Your task to perform on an android device: Search for vegetarian restaurants on Maps Image 0: 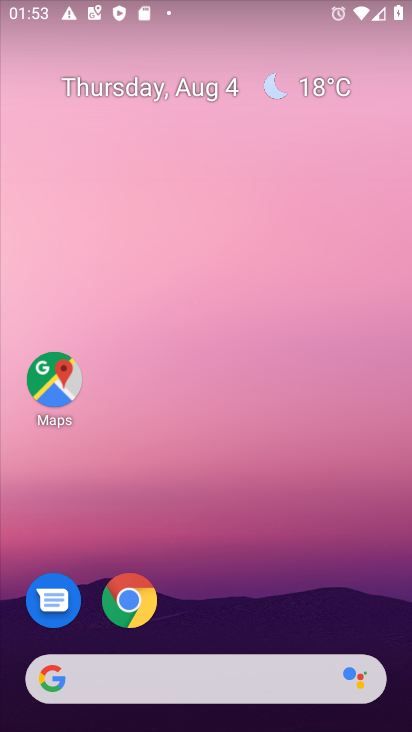
Step 0: click (54, 366)
Your task to perform on an android device: Search for vegetarian restaurants on Maps Image 1: 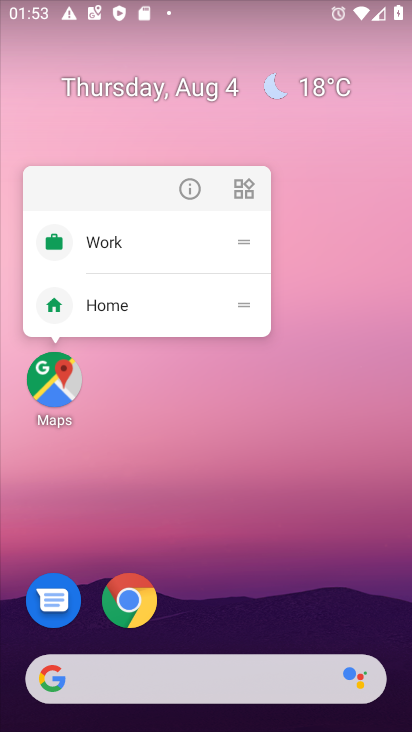
Step 1: click (55, 382)
Your task to perform on an android device: Search for vegetarian restaurants on Maps Image 2: 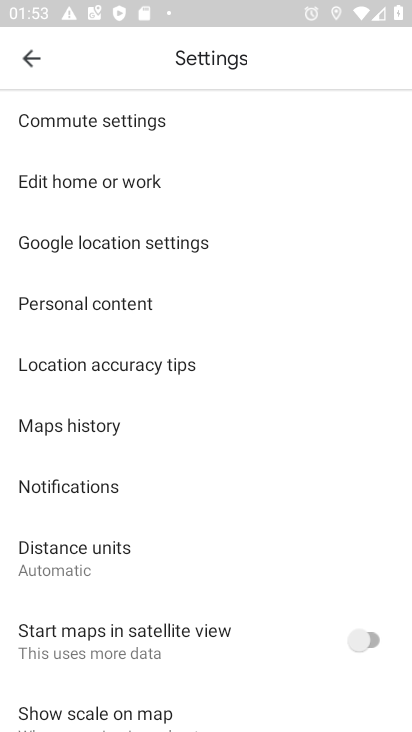
Step 2: click (37, 65)
Your task to perform on an android device: Search for vegetarian restaurants on Maps Image 3: 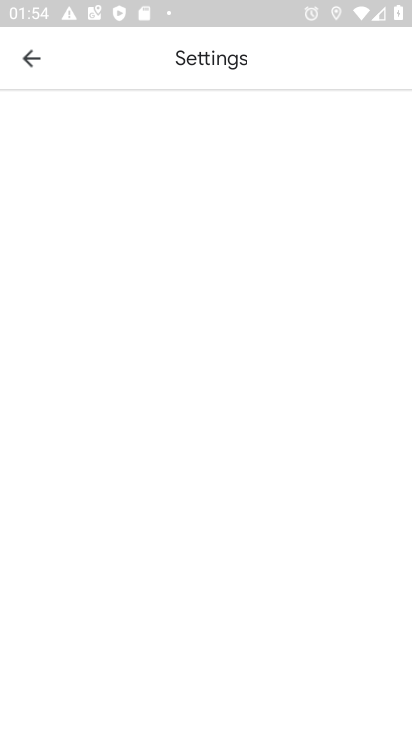
Step 3: click (37, 64)
Your task to perform on an android device: Search for vegetarian restaurants on Maps Image 4: 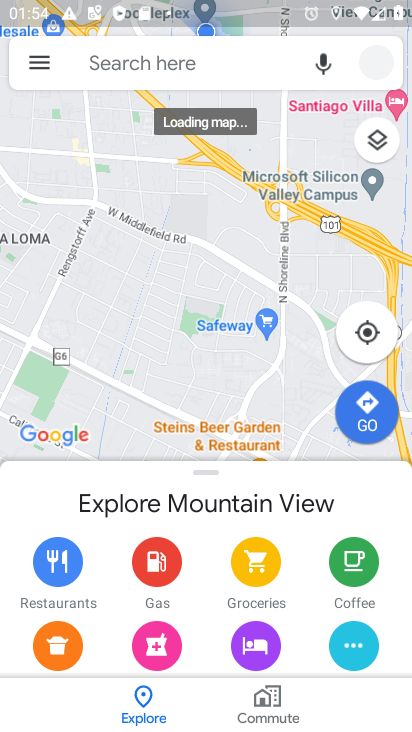
Step 4: click (161, 64)
Your task to perform on an android device: Search for vegetarian restaurants on Maps Image 5: 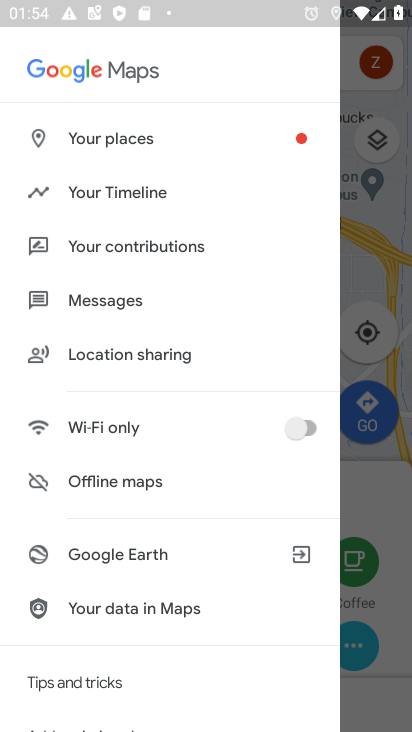
Step 5: click (353, 80)
Your task to perform on an android device: Search for vegetarian restaurants on Maps Image 6: 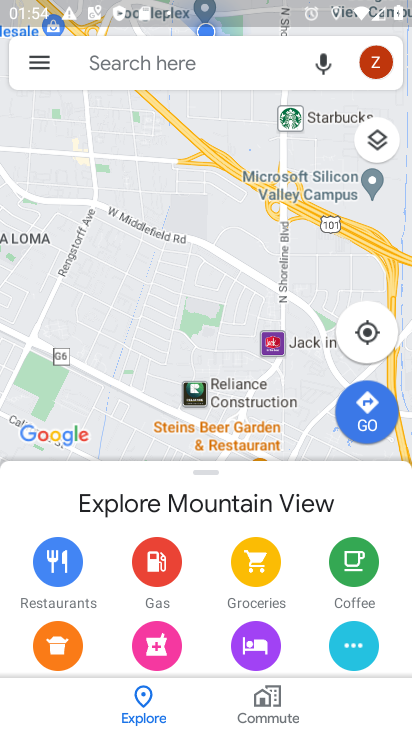
Step 6: click (157, 58)
Your task to perform on an android device: Search for vegetarian restaurants on Maps Image 7: 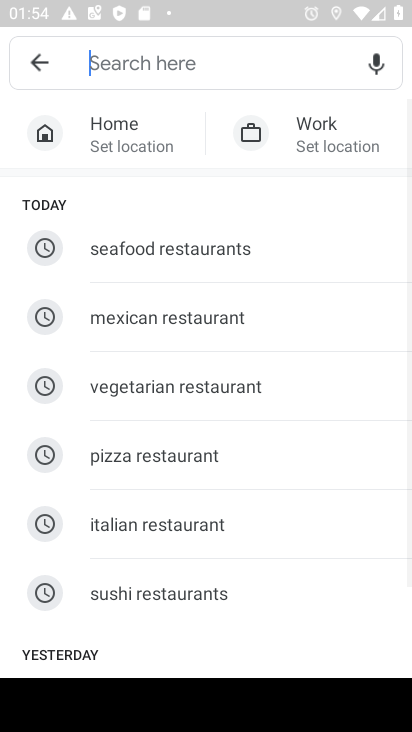
Step 7: click (193, 382)
Your task to perform on an android device: Search for vegetarian restaurants on Maps Image 8: 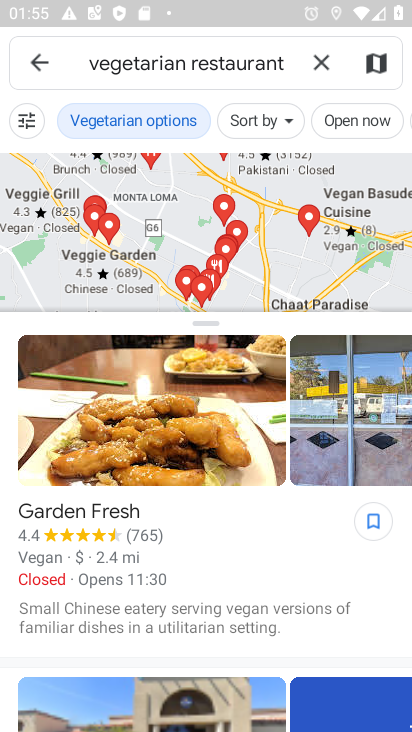
Step 8: task complete